Your task to perform on an android device: Open maps Image 0: 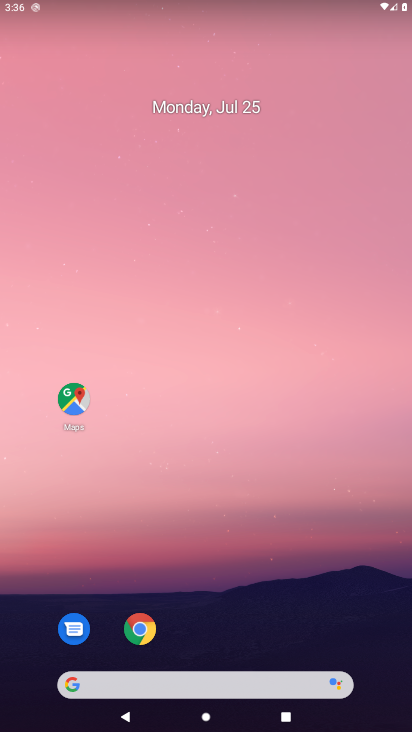
Step 0: click (76, 382)
Your task to perform on an android device: Open maps Image 1: 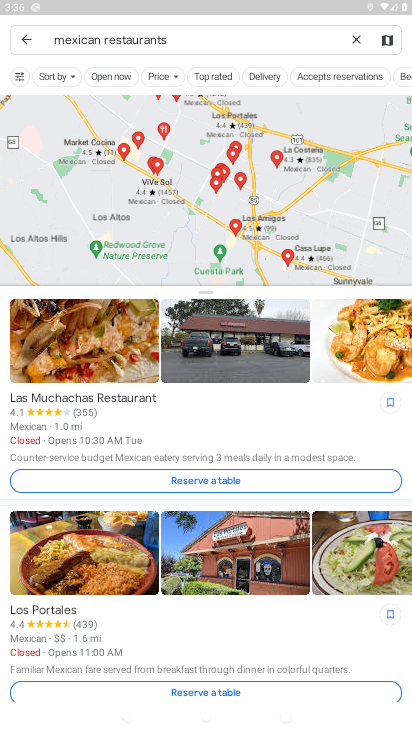
Step 1: click (28, 42)
Your task to perform on an android device: Open maps Image 2: 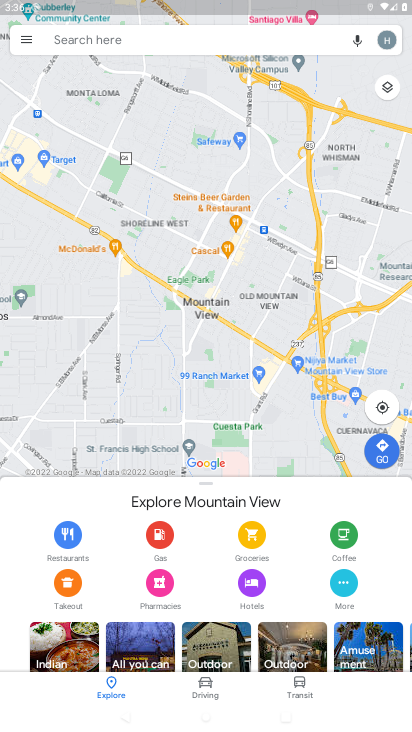
Step 2: task complete